Your task to perform on an android device: Search for seafood restaurants on Google Maps Image 0: 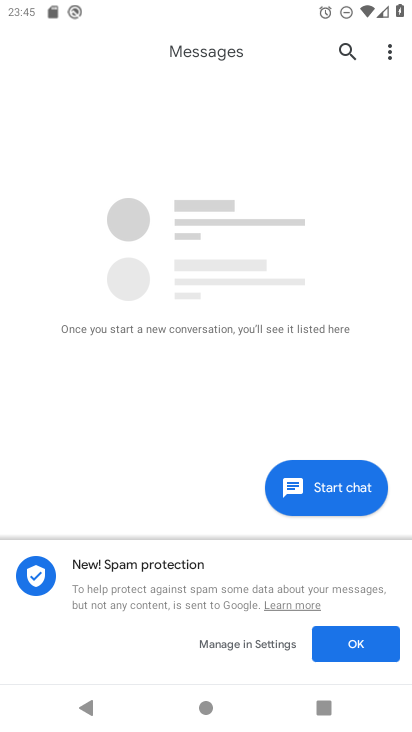
Step 0: press home button
Your task to perform on an android device: Search for seafood restaurants on Google Maps Image 1: 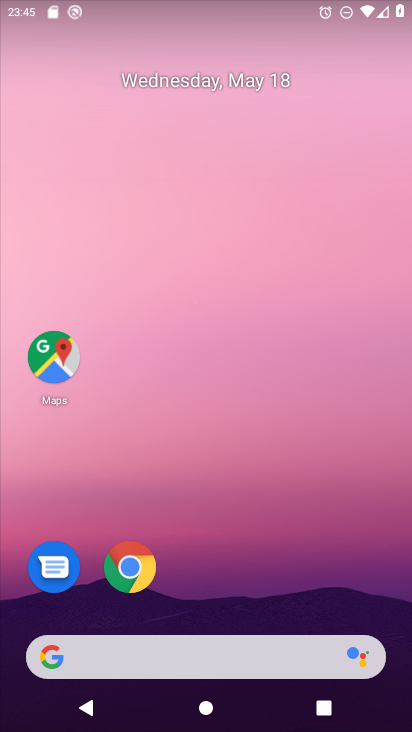
Step 1: drag from (259, 669) to (397, 194)
Your task to perform on an android device: Search for seafood restaurants on Google Maps Image 2: 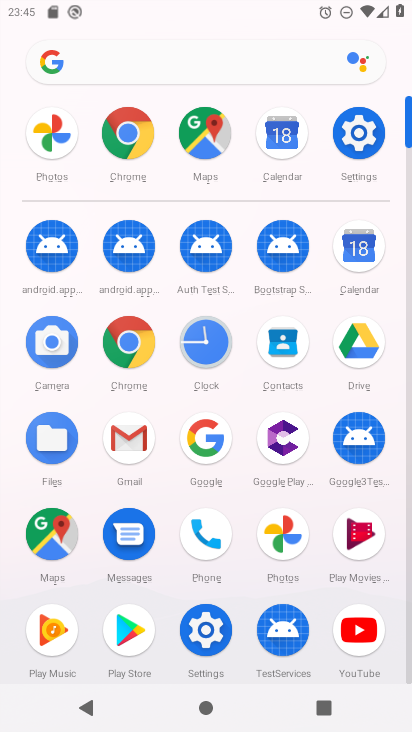
Step 2: click (65, 519)
Your task to perform on an android device: Search for seafood restaurants on Google Maps Image 3: 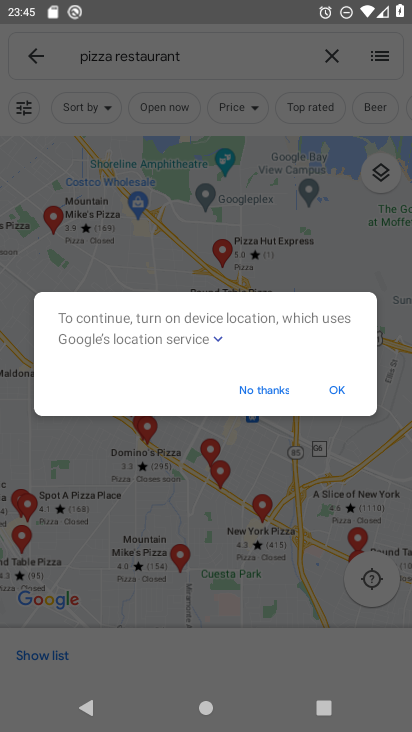
Step 3: click (342, 394)
Your task to perform on an android device: Search for seafood restaurants on Google Maps Image 4: 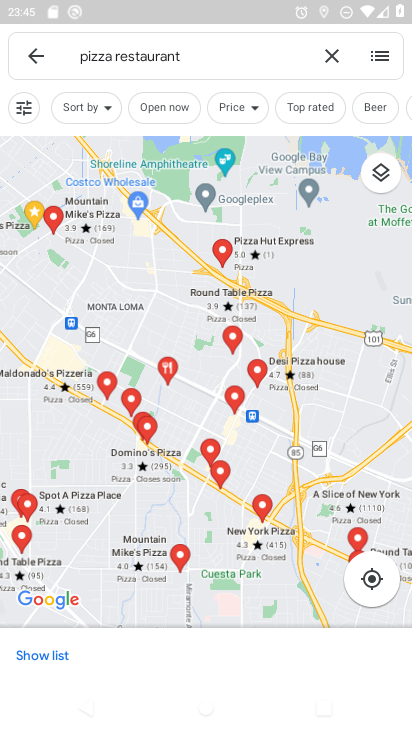
Step 4: click (332, 64)
Your task to perform on an android device: Search for seafood restaurants on Google Maps Image 5: 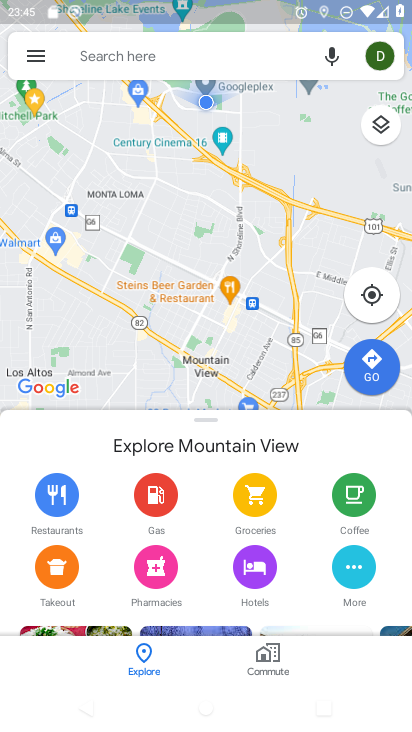
Step 5: click (143, 49)
Your task to perform on an android device: Search for seafood restaurants on Google Maps Image 6: 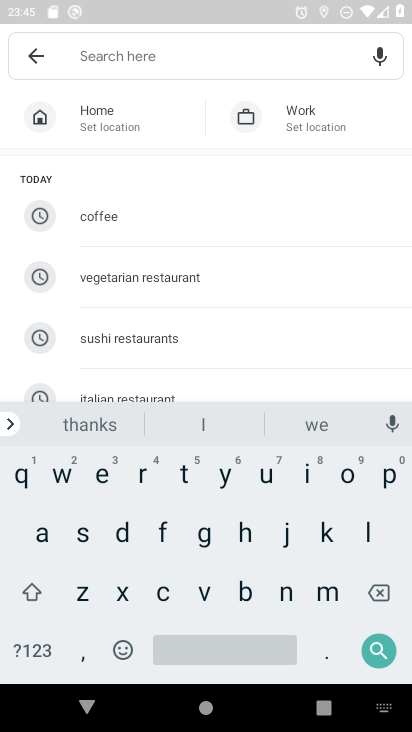
Step 6: click (78, 538)
Your task to perform on an android device: Search for seafood restaurants on Google Maps Image 7: 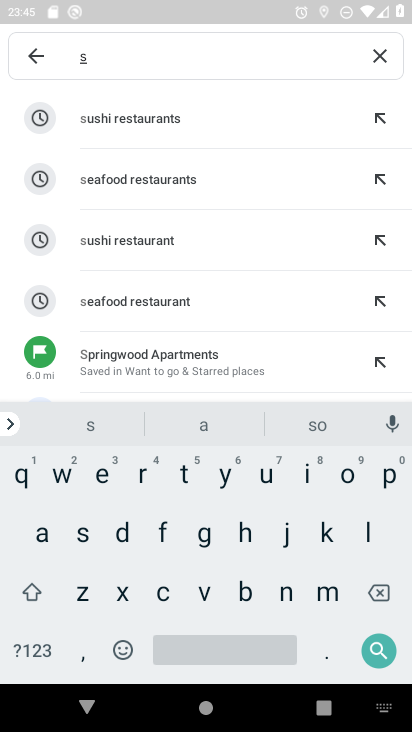
Step 7: click (144, 177)
Your task to perform on an android device: Search for seafood restaurants on Google Maps Image 8: 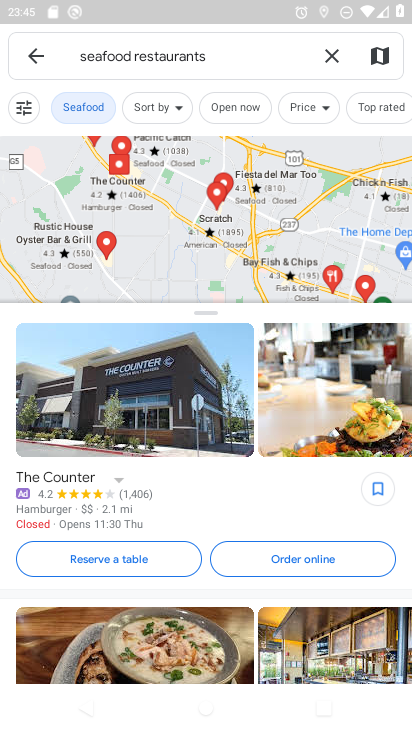
Step 8: click (187, 216)
Your task to perform on an android device: Search for seafood restaurants on Google Maps Image 9: 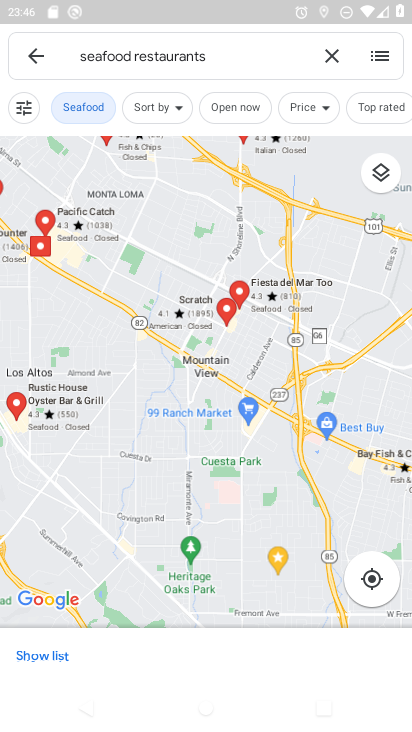
Step 9: click (147, 282)
Your task to perform on an android device: Search for seafood restaurants on Google Maps Image 10: 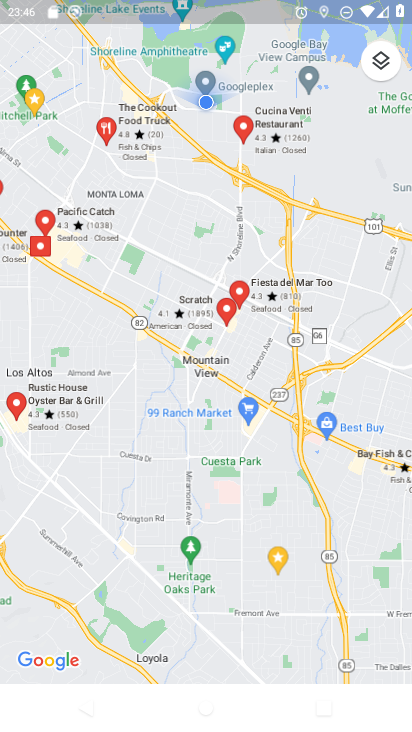
Step 10: task complete